Your task to perform on an android device: Open calendar and show me the second week of next month Image 0: 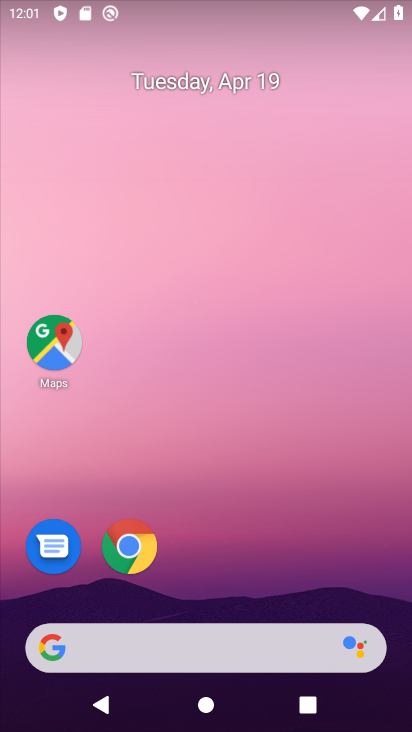
Step 0: drag from (234, 591) to (243, 38)
Your task to perform on an android device: Open calendar and show me the second week of next month Image 1: 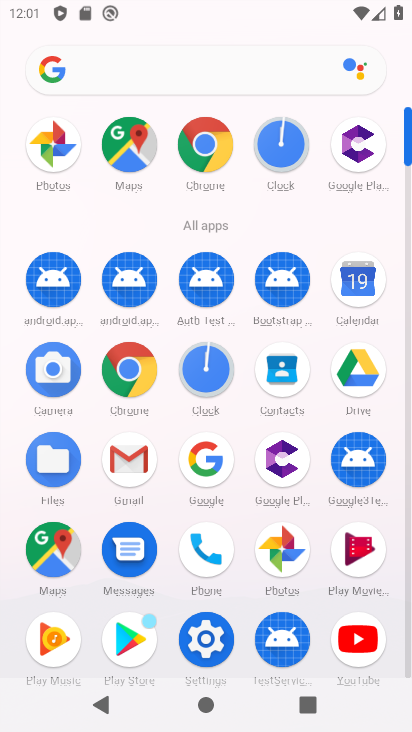
Step 1: click (357, 280)
Your task to perform on an android device: Open calendar and show me the second week of next month Image 2: 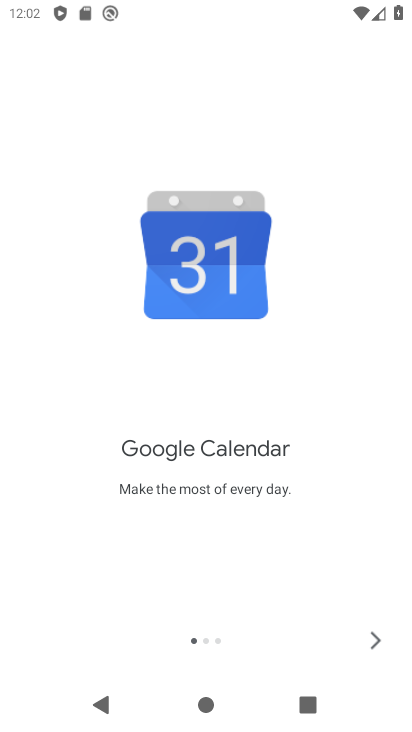
Step 2: click (384, 638)
Your task to perform on an android device: Open calendar and show me the second week of next month Image 3: 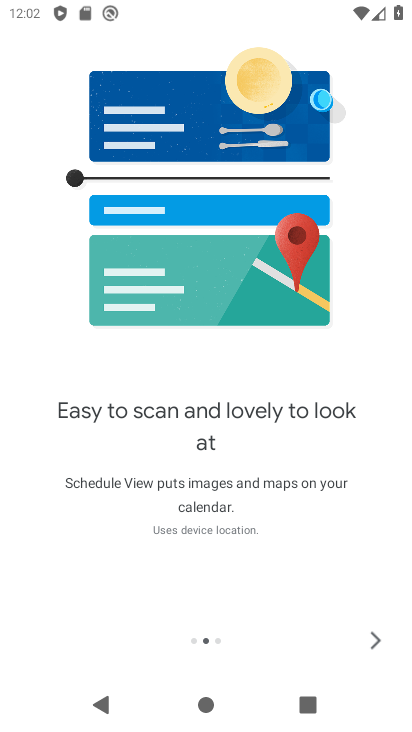
Step 3: click (374, 641)
Your task to perform on an android device: Open calendar and show me the second week of next month Image 4: 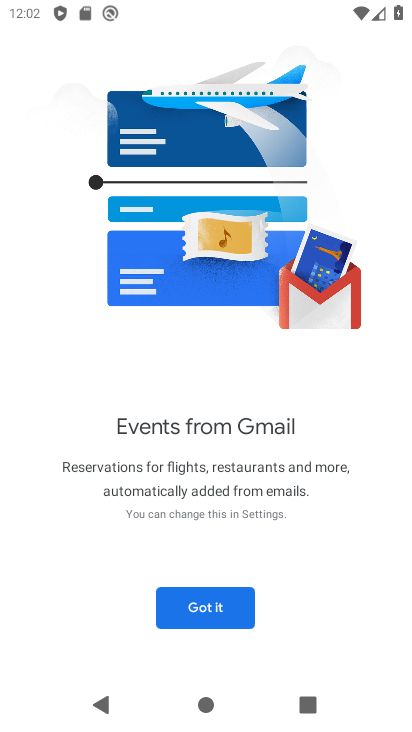
Step 4: click (207, 605)
Your task to perform on an android device: Open calendar and show me the second week of next month Image 5: 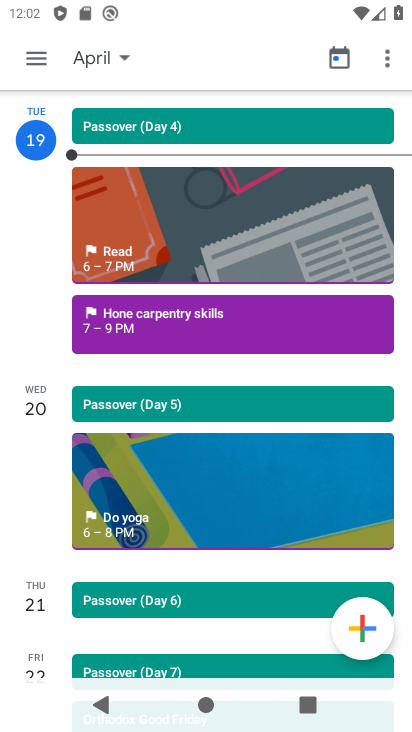
Step 5: click (36, 60)
Your task to perform on an android device: Open calendar and show me the second week of next month Image 6: 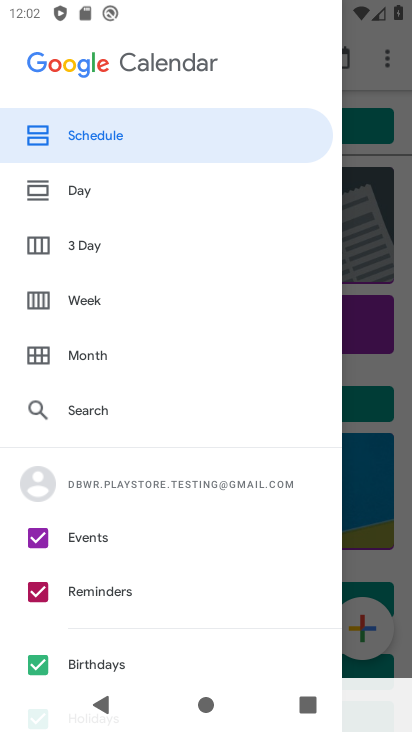
Step 6: click (58, 305)
Your task to perform on an android device: Open calendar and show me the second week of next month Image 7: 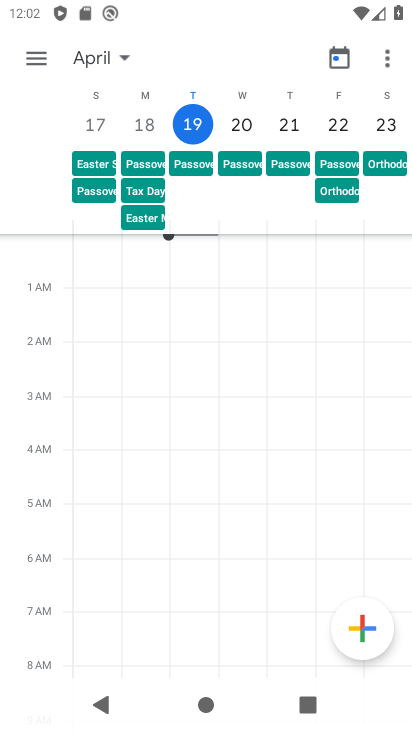
Step 7: drag from (383, 115) to (41, 124)
Your task to perform on an android device: Open calendar and show me the second week of next month Image 8: 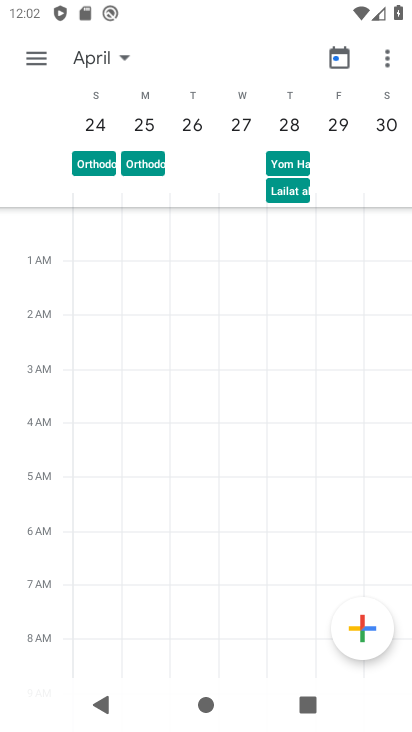
Step 8: drag from (380, 116) to (76, 111)
Your task to perform on an android device: Open calendar and show me the second week of next month Image 9: 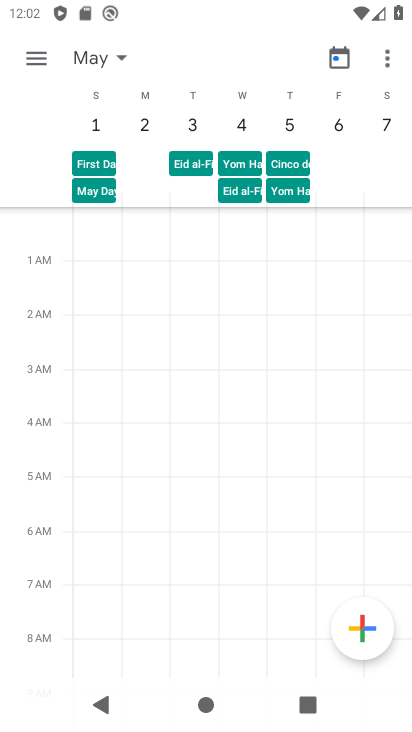
Step 9: drag from (389, 121) to (30, 111)
Your task to perform on an android device: Open calendar and show me the second week of next month Image 10: 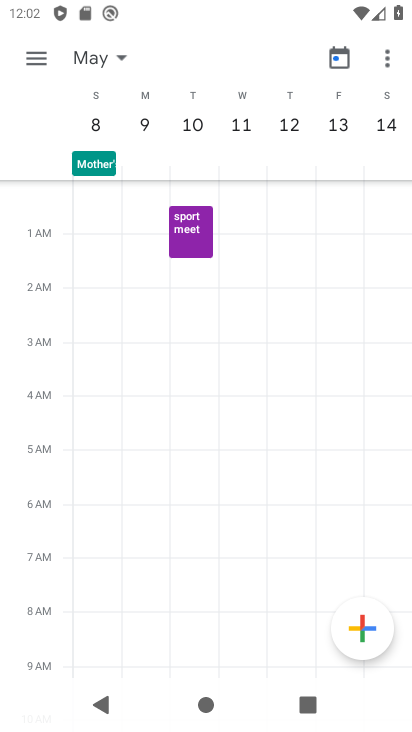
Step 10: click (94, 115)
Your task to perform on an android device: Open calendar and show me the second week of next month Image 11: 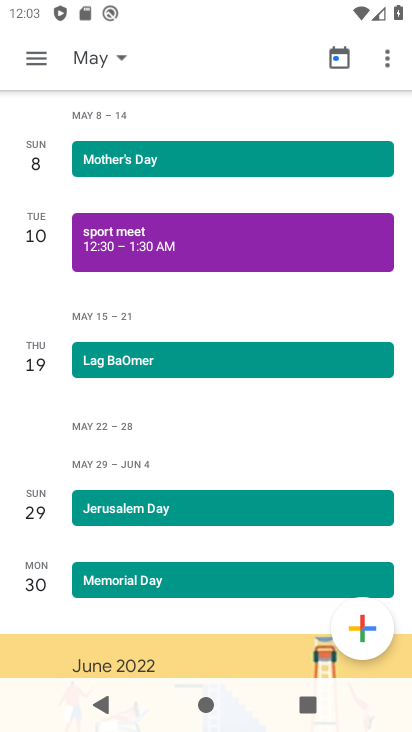
Step 11: task complete